Your task to perform on an android device: Open Google Maps Image 0: 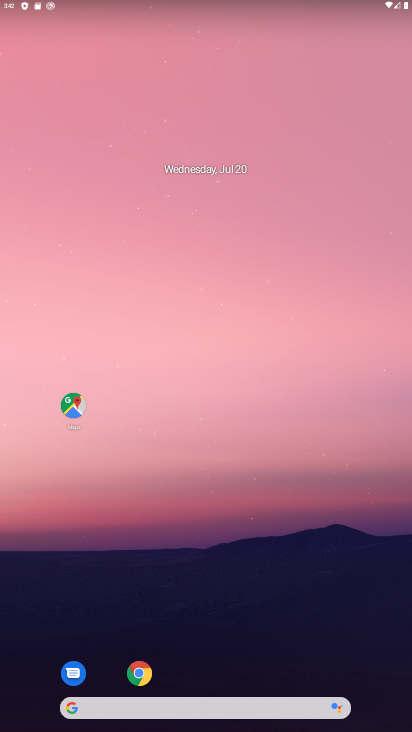
Step 0: drag from (238, 669) to (106, 80)
Your task to perform on an android device: Open Google Maps Image 1: 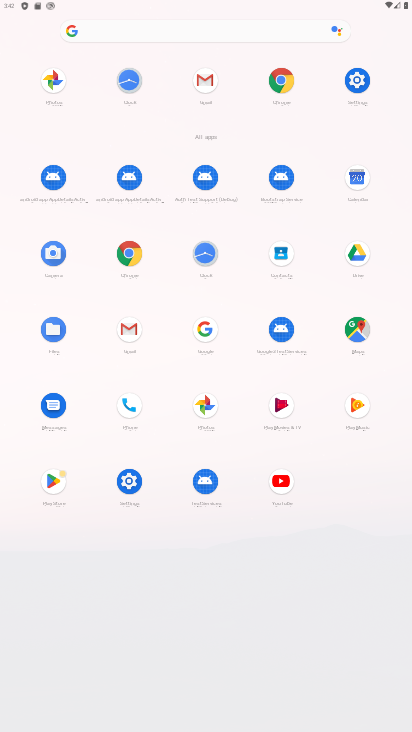
Step 1: click (362, 327)
Your task to perform on an android device: Open Google Maps Image 2: 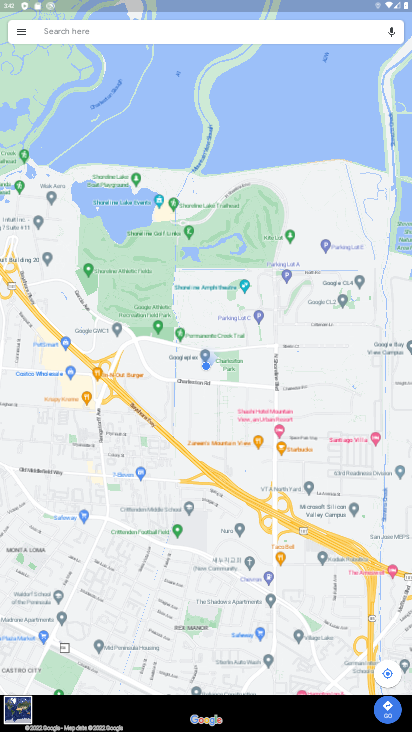
Step 2: task complete